Your task to perform on an android device: Go to Maps Image 0: 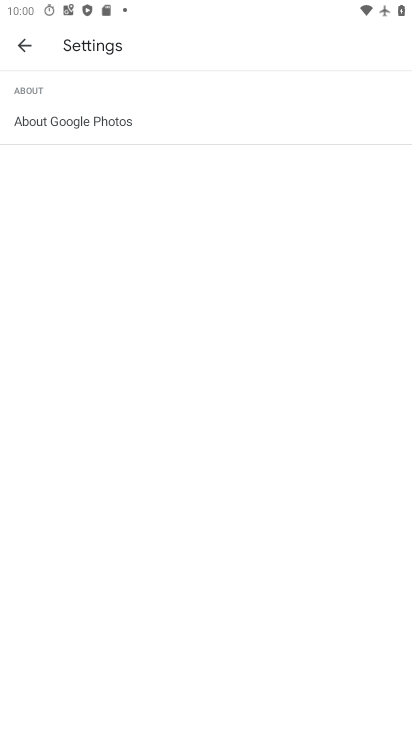
Step 0: press home button
Your task to perform on an android device: Go to Maps Image 1: 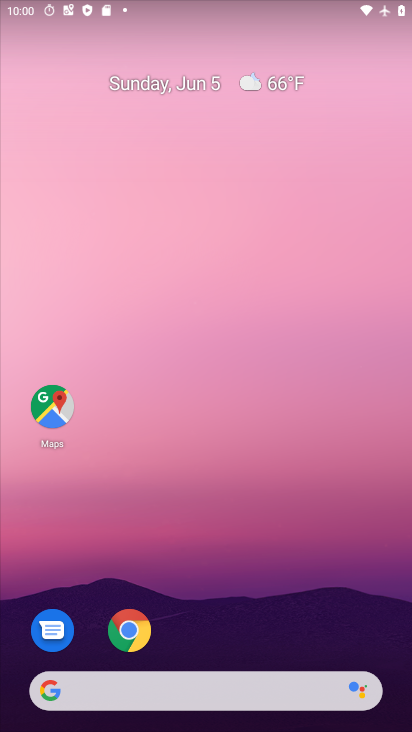
Step 1: drag from (230, 725) to (234, 117)
Your task to perform on an android device: Go to Maps Image 2: 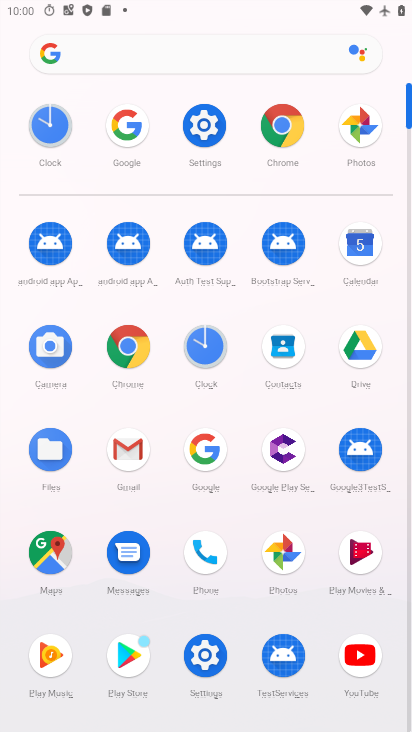
Step 2: click (57, 553)
Your task to perform on an android device: Go to Maps Image 3: 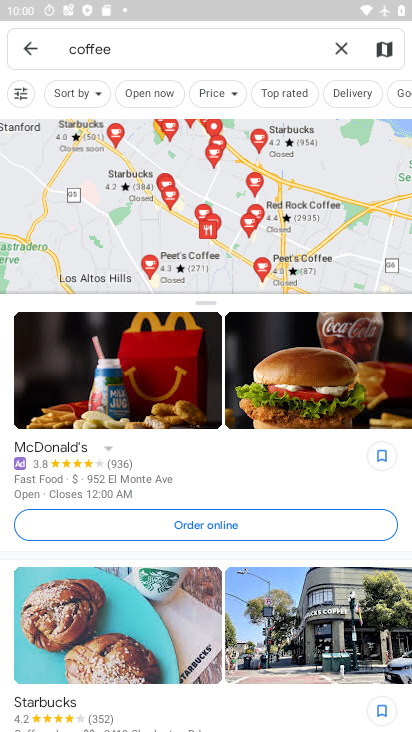
Step 3: task complete